Your task to perform on an android device: turn off sleep mode Image 0: 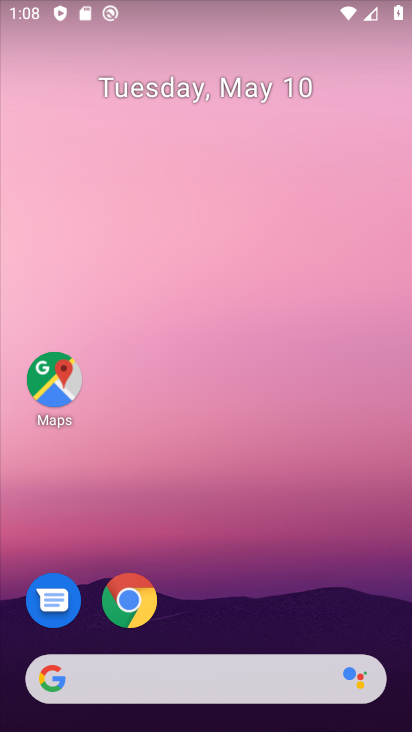
Step 0: drag from (254, 725) to (400, 358)
Your task to perform on an android device: turn off sleep mode Image 1: 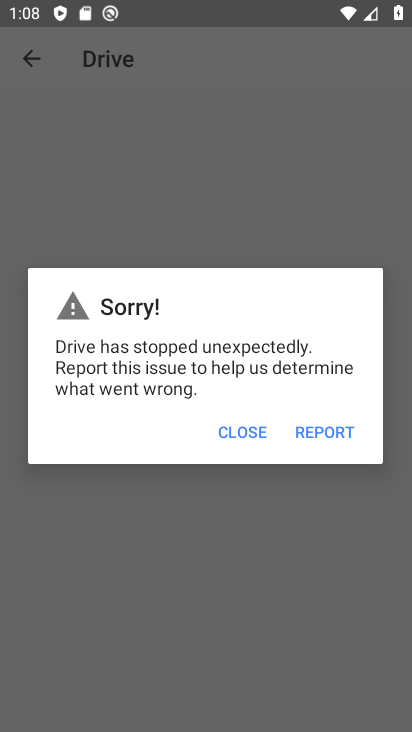
Step 1: press home button
Your task to perform on an android device: turn off sleep mode Image 2: 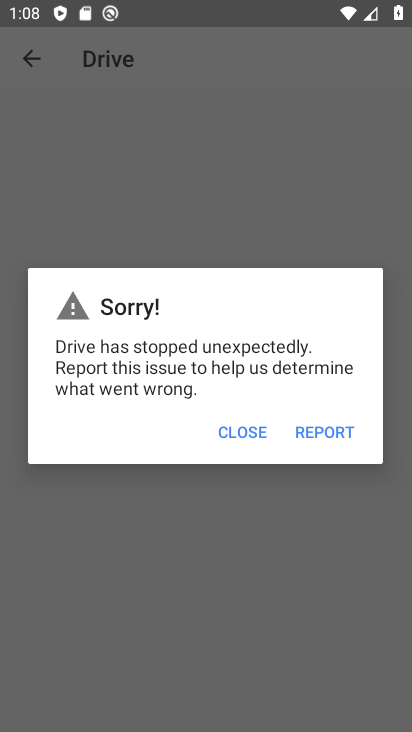
Step 2: drag from (400, 358) to (395, 582)
Your task to perform on an android device: turn off sleep mode Image 3: 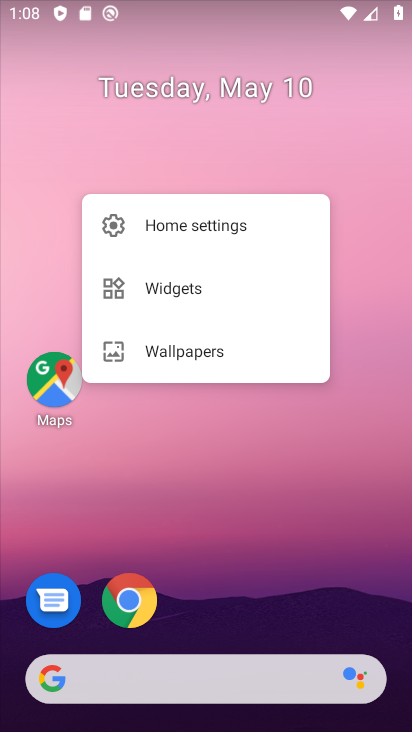
Step 3: click (358, 575)
Your task to perform on an android device: turn off sleep mode Image 4: 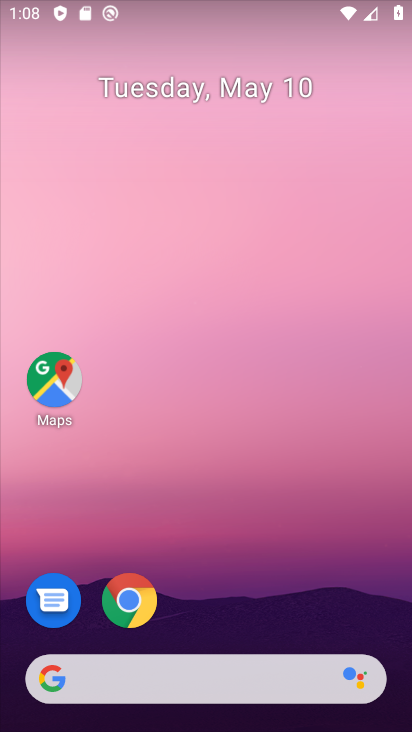
Step 4: drag from (204, 592) to (287, 125)
Your task to perform on an android device: turn off sleep mode Image 5: 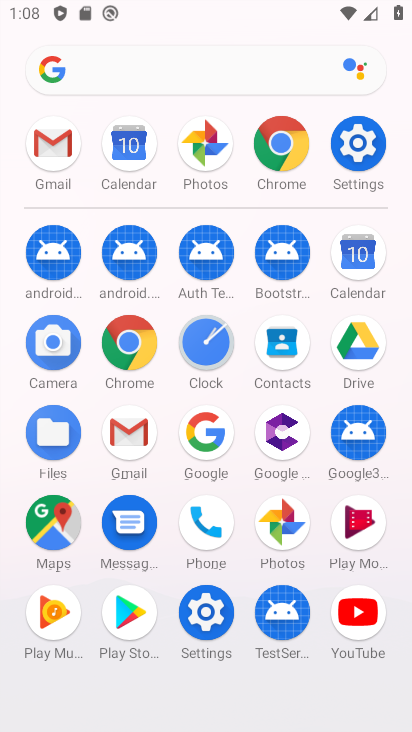
Step 5: click (337, 176)
Your task to perform on an android device: turn off sleep mode Image 6: 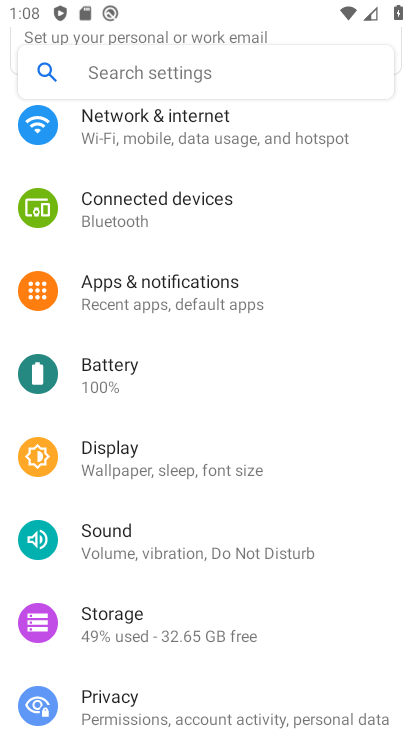
Step 6: click (179, 463)
Your task to perform on an android device: turn off sleep mode Image 7: 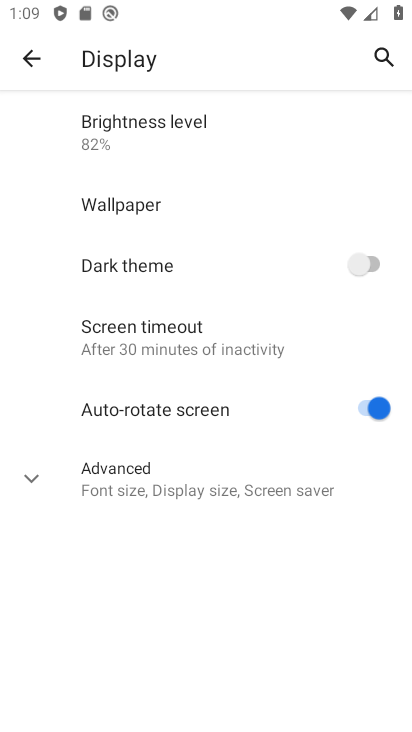
Step 7: click (174, 484)
Your task to perform on an android device: turn off sleep mode Image 8: 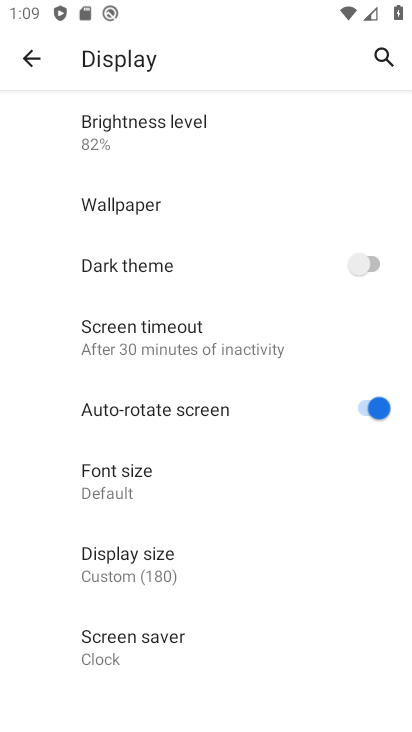
Step 8: task complete